Your task to perform on an android device: turn on airplane mode Image 0: 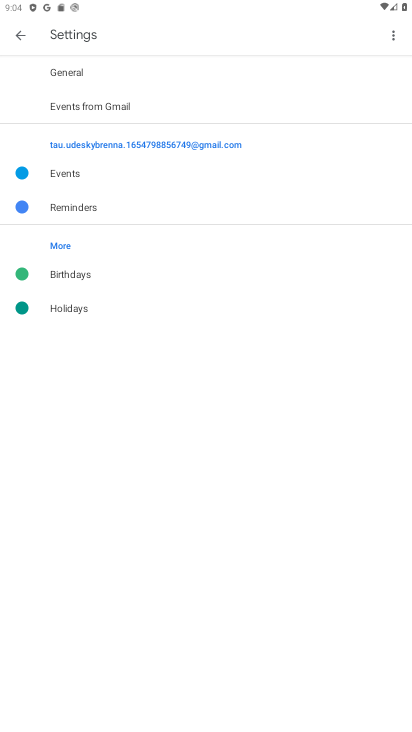
Step 0: press home button
Your task to perform on an android device: turn on airplane mode Image 1: 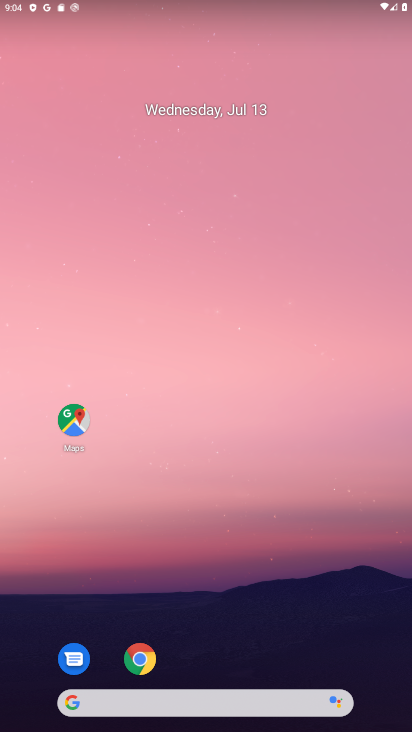
Step 1: drag from (241, 19) to (232, 518)
Your task to perform on an android device: turn on airplane mode Image 2: 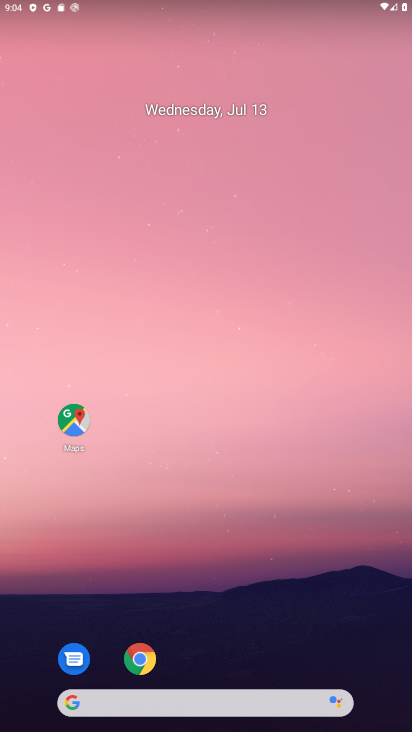
Step 2: drag from (267, 5) to (227, 610)
Your task to perform on an android device: turn on airplane mode Image 3: 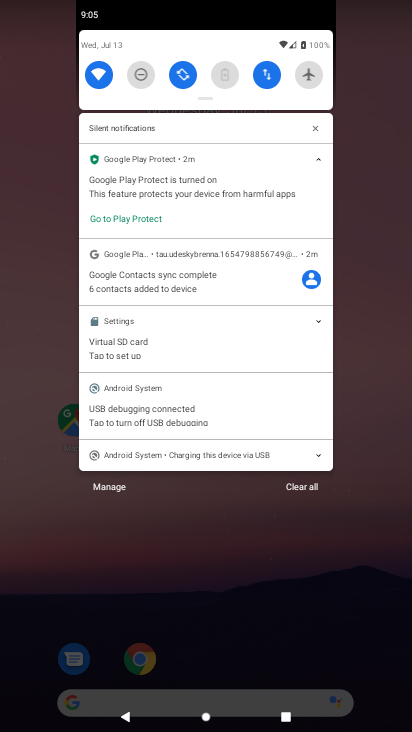
Step 3: click (310, 76)
Your task to perform on an android device: turn on airplane mode Image 4: 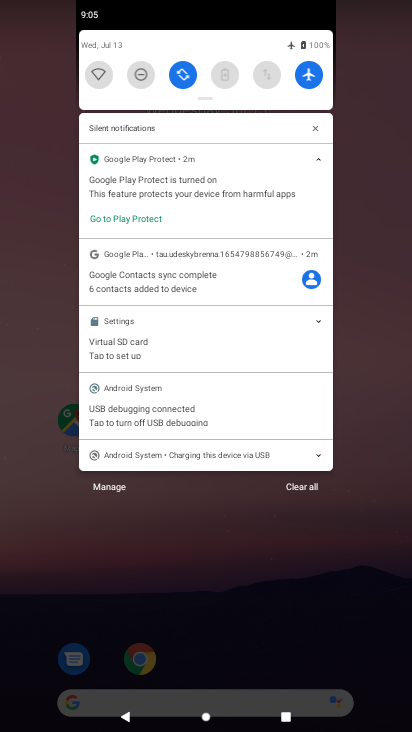
Step 4: task complete